Your task to perform on an android device: add a contact in the contacts app Image 0: 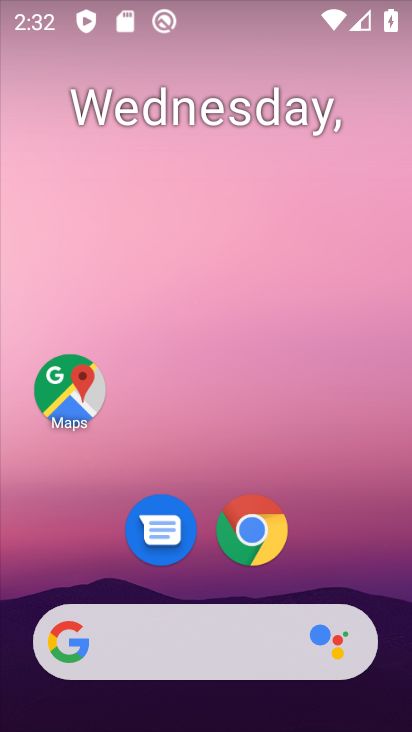
Step 0: drag from (182, 626) to (202, 144)
Your task to perform on an android device: add a contact in the contacts app Image 1: 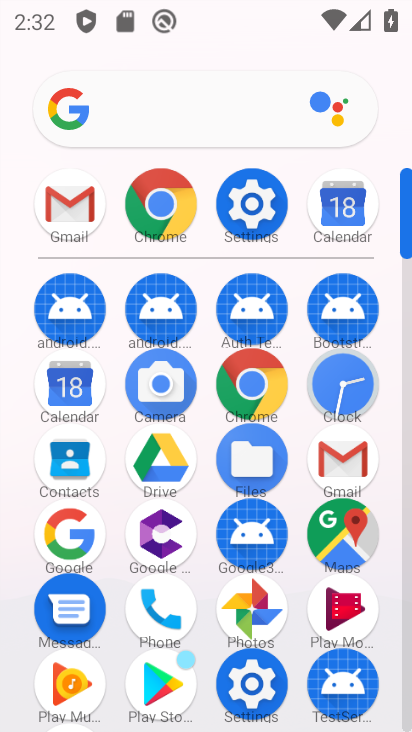
Step 1: click (67, 456)
Your task to perform on an android device: add a contact in the contacts app Image 2: 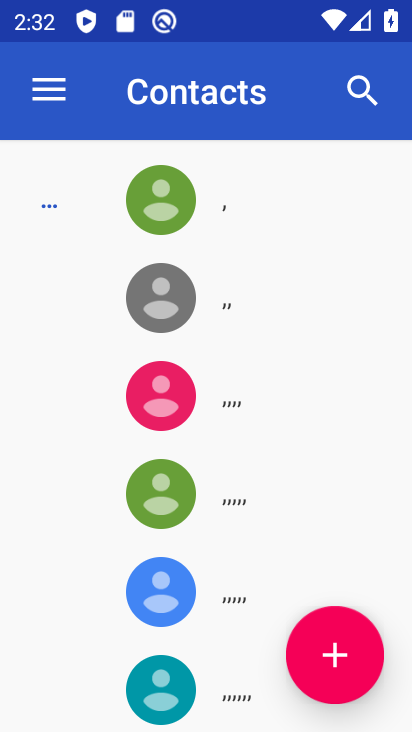
Step 2: click (315, 639)
Your task to perform on an android device: add a contact in the contacts app Image 3: 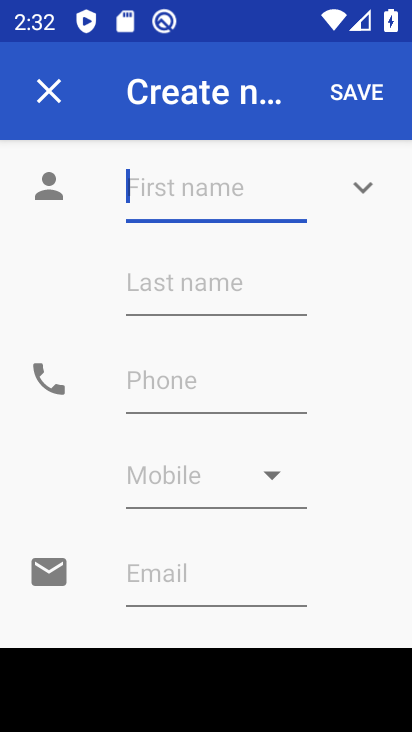
Step 3: type "dfjgd"
Your task to perform on an android device: add a contact in the contacts app Image 4: 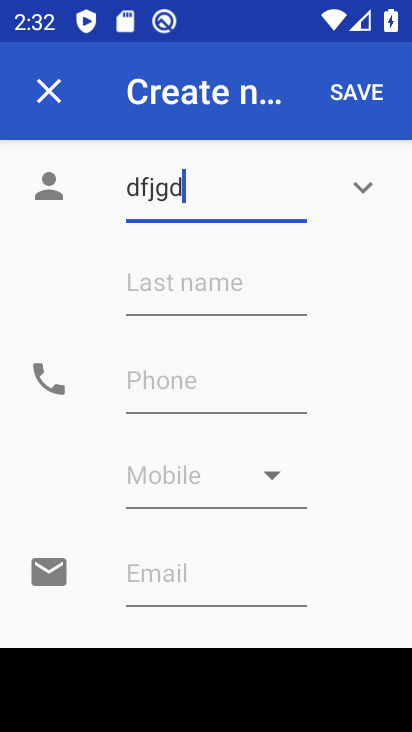
Step 4: click (189, 378)
Your task to perform on an android device: add a contact in the contacts app Image 5: 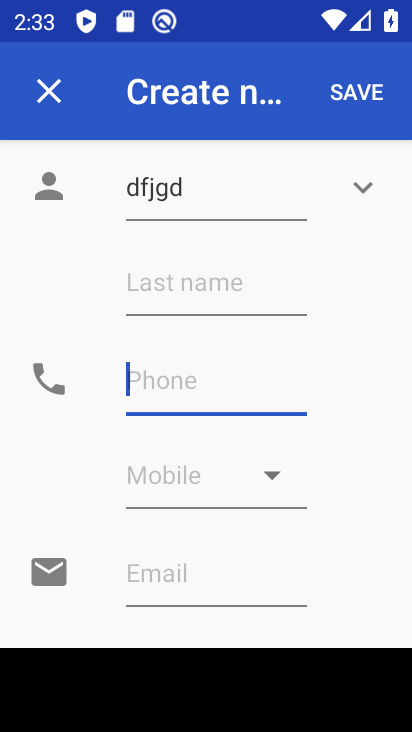
Step 5: type "394853345"
Your task to perform on an android device: add a contact in the contacts app Image 6: 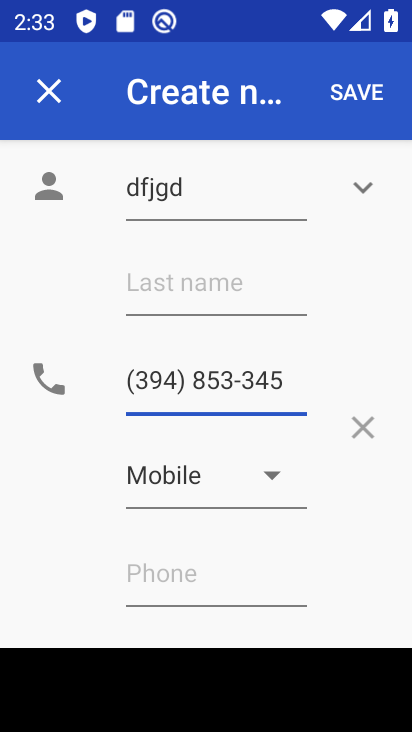
Step 6: click (355, 102)
Your task to perform on an android device: add a contact in the contacts app Image 7: 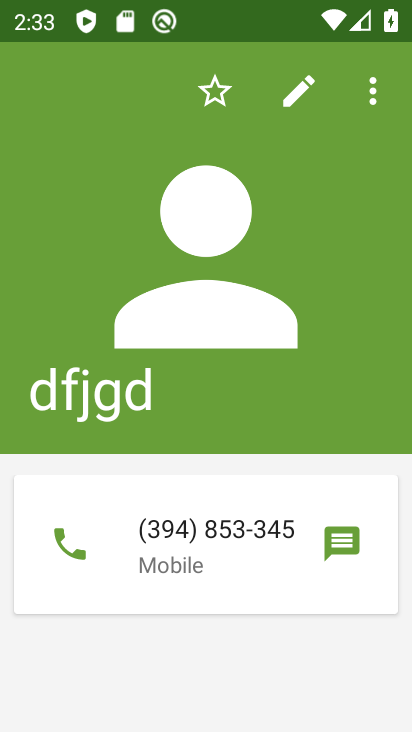
Step 7: press home button
Your task to perform on an android device: add a contact in the contacts app Image 8: 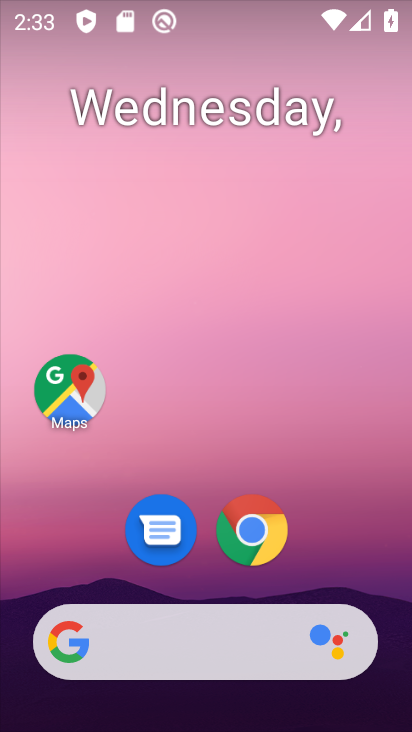
Step 8: drag from (209, 660) to (212, 133)
Your task to perform on an android device: add a contact in the contacts app Image 9: 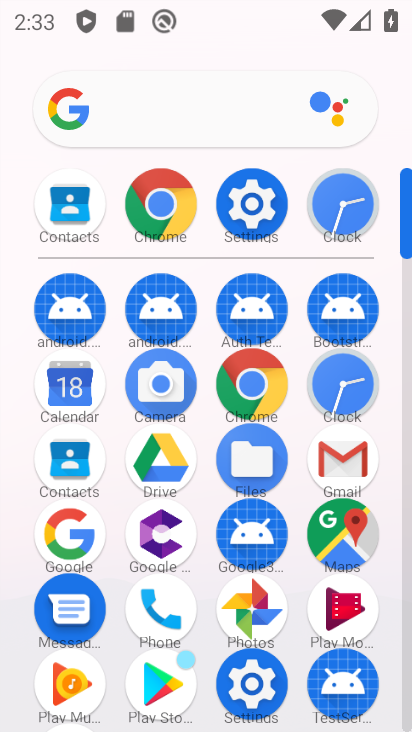
Step 9: click (81, 469)
Your task to perform on an android device: add a contact in the contacts app Image 10: 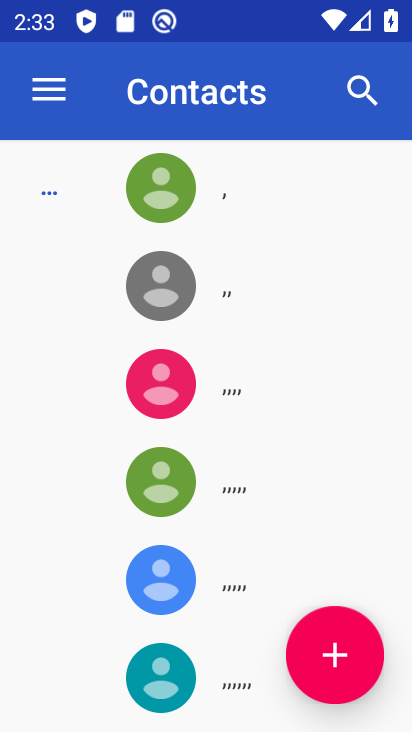
Step 10: click (337, 654)
Your task to perform on an android device: add a contact in the contacts app Image 11: 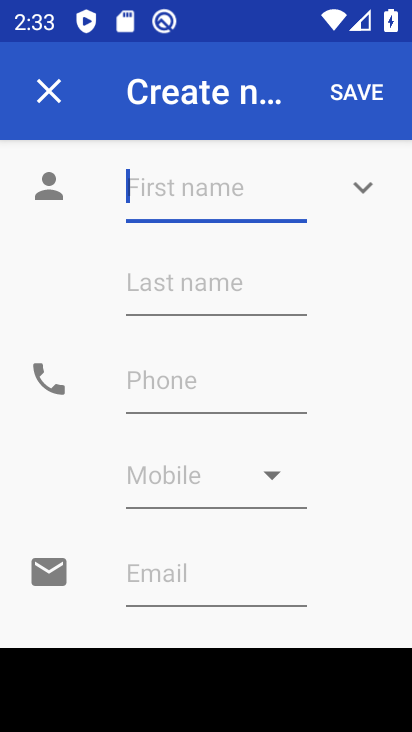
Step 11: type "luke "
Your task to perform on an android device: add a contact in the contacts app Image 12: 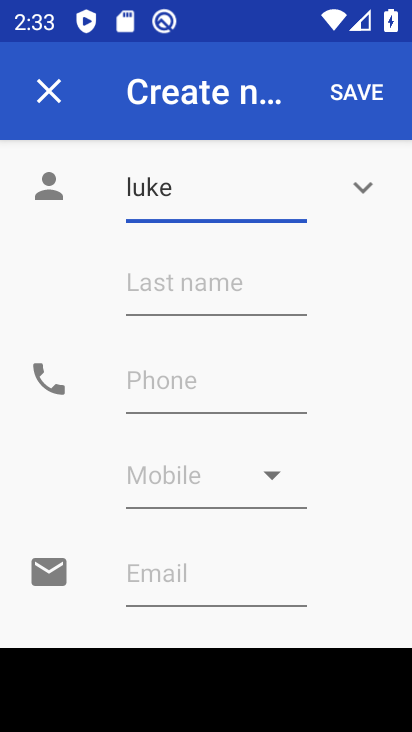
Step 12: click (196, 294)
Your task to perform on an android device: add a contact in the contacts app Image 13: 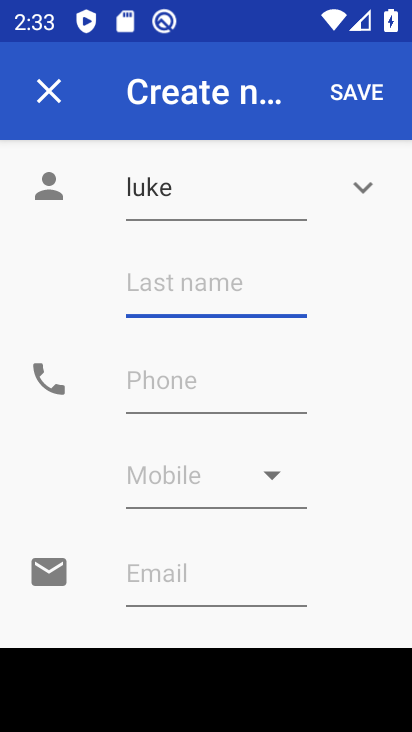
Step 13: type "dunphy"
Your task to perform on an android device: add a contact in the contacts app Image 14: 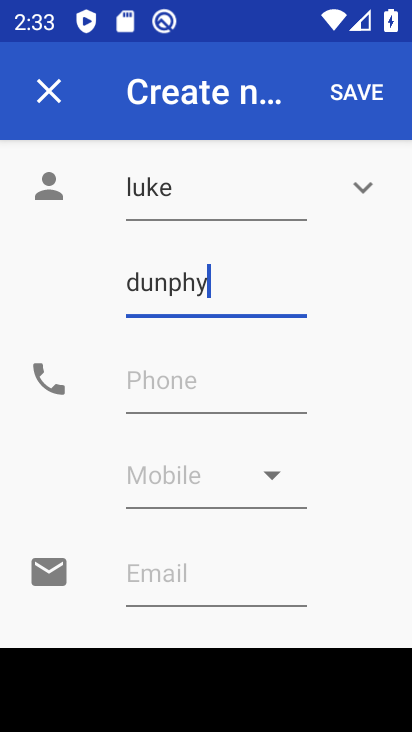
Step 14: click (224, 383)
Your task to perform on an android device: add a contact in the contacts app Image 15: 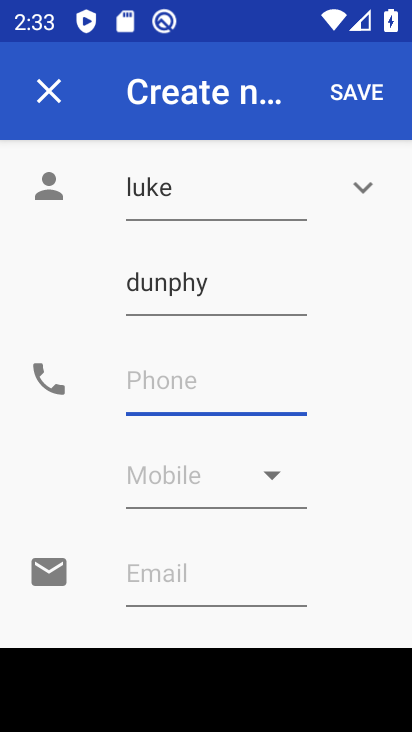
Step 15: type "346456575"
Your task to perform on an android device: add a contact in the contacts app Image 16: 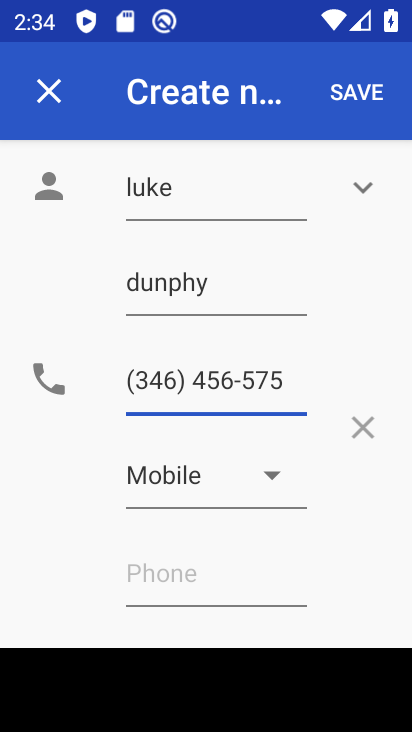
Step 16: click (363, 89)
Your task to perform on an android device: add a contact in the contacts app Image 17: 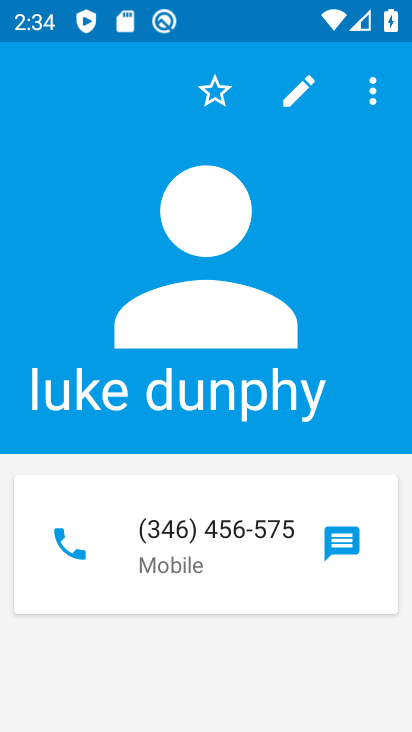
Step 17: task complete